Your task to perform on an android device: see tabs open on other devices in the chrome app Image 0: 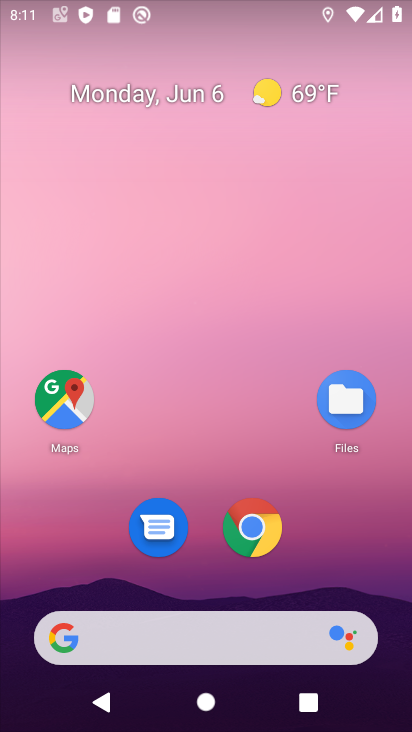
Step 0: click (258, 525)
Your task to perform on an android device: see tabs open on other devices in the chrome app Image 1: 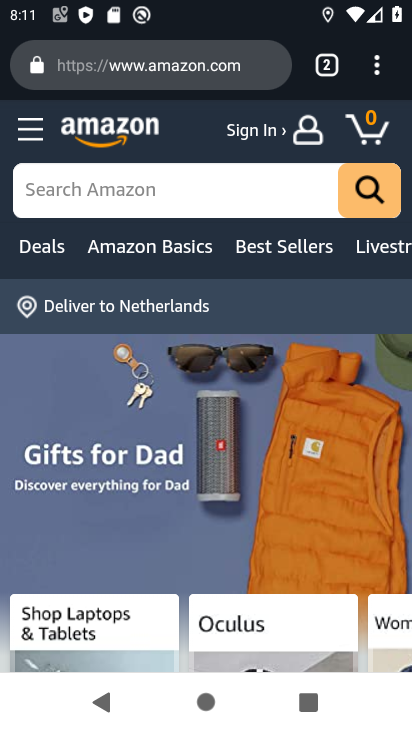
Step 1: click (368, 61)
Your task to perform on an android device: see tabs open on other devices in the chrome app Image 2: 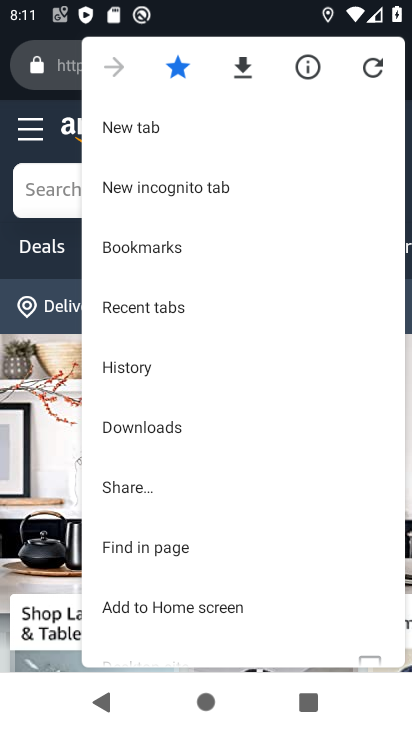
Step 2: click (6, 92)
Your task to perform on an android device: see tabs open on other devices in the chrome app Image 3: 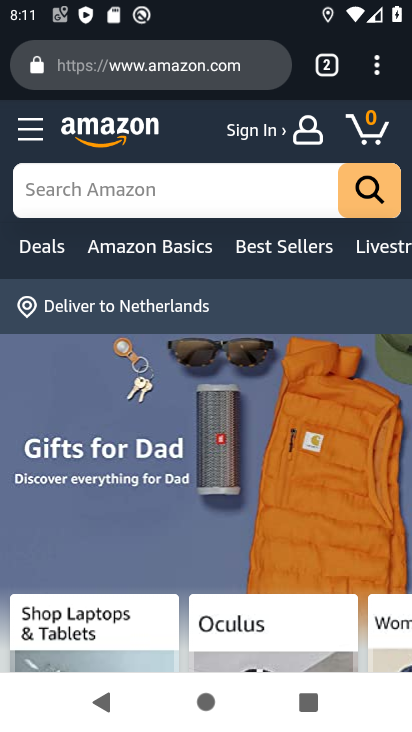
Step 3: click (325, 65)
Your task to perform on an android device: see tabs open on other devices in the chrome app Image 4: 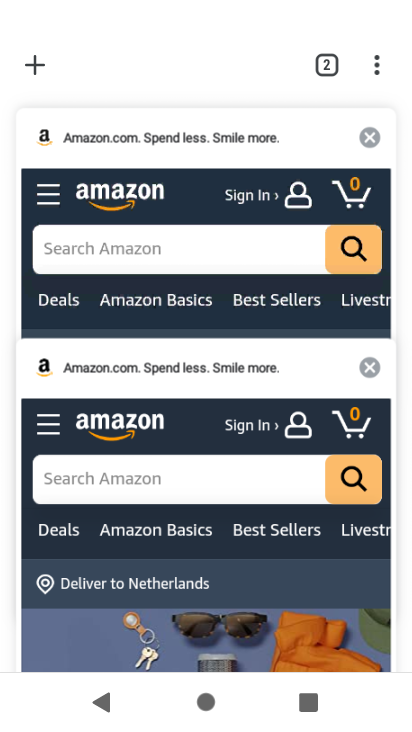
Step 4: task complete